Your task to perform on an android device: Open ESPN.com Image 0: 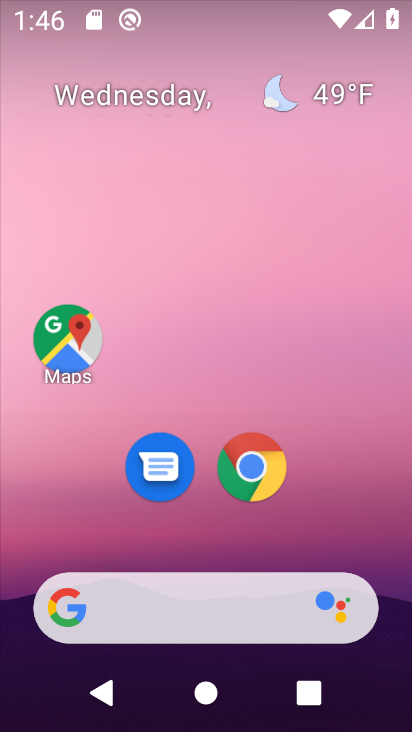
Step 0: click (256, 462)
Your task to perform on an android device: Open ESPN.com Image 1: 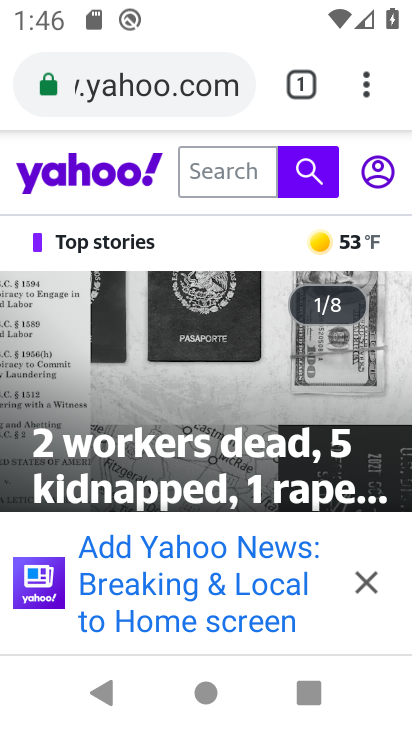
Step 1: click (144, 76)
Your task to perform on an android device: Open ESPN.com Image 2: 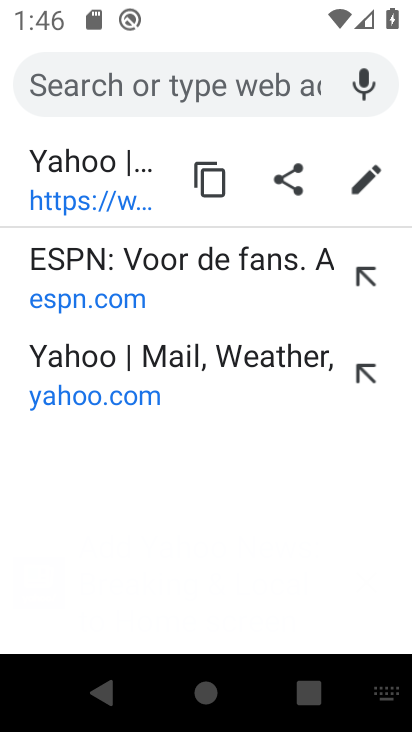
Step 2: type "espn.com"
Your task to perform on an android device: Open ESPN.com Image 3: 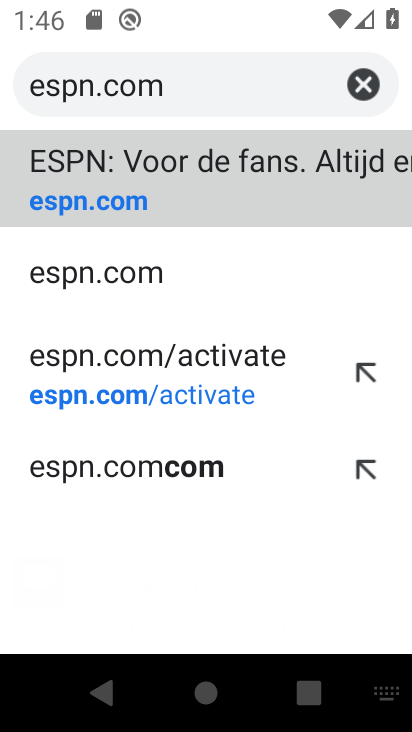
Step 3: click (67, 161)
Your task to perform on an android device: Open ESPN.com Image 4: 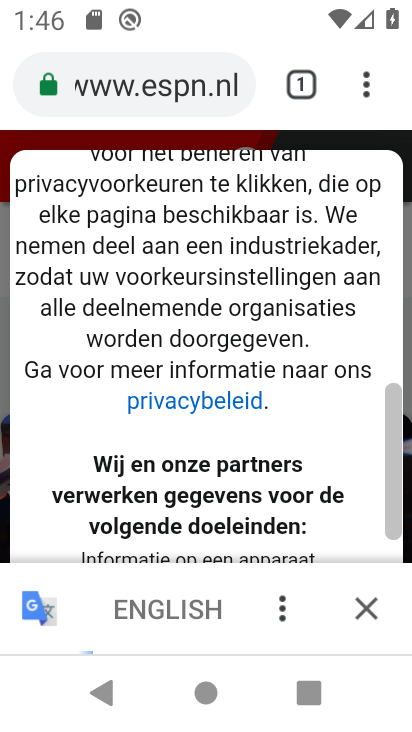
Step 4: task complete